Your task to perform on an android device: open the mobile data screen to see how much data has been used Image 0: 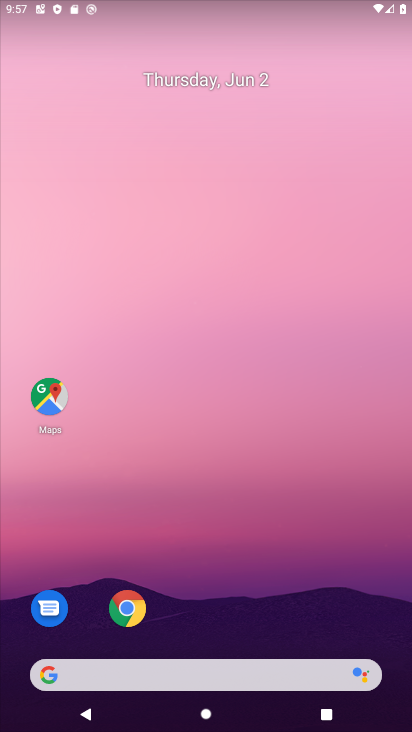
Step 0: drag from (229, 637) to (296, 135)
Your task to perform on an android device: open the mobile data screen to see how much data has been used Image 1: 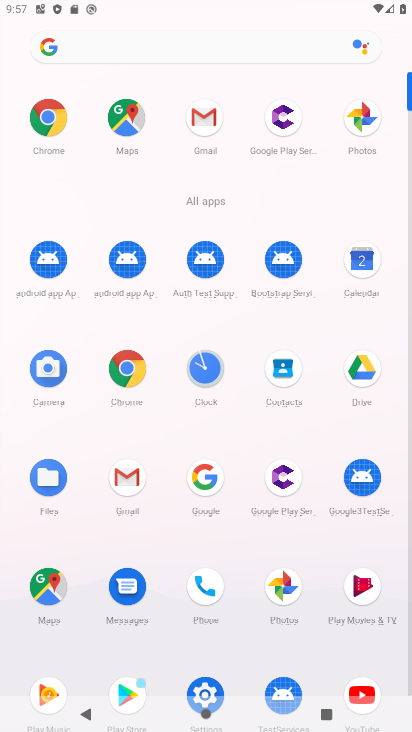
Step 1: click (211, 684)
Your task to perform on an android device: open the mobile data screen to see how much data has been used Image 2: 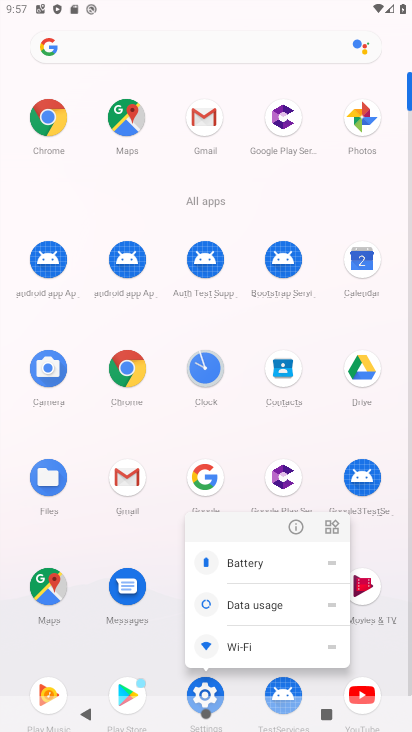
Step 2: click (206, 692)
Your task to perform on an android device: open the mobile data screen to see how much data has been used Image 3: 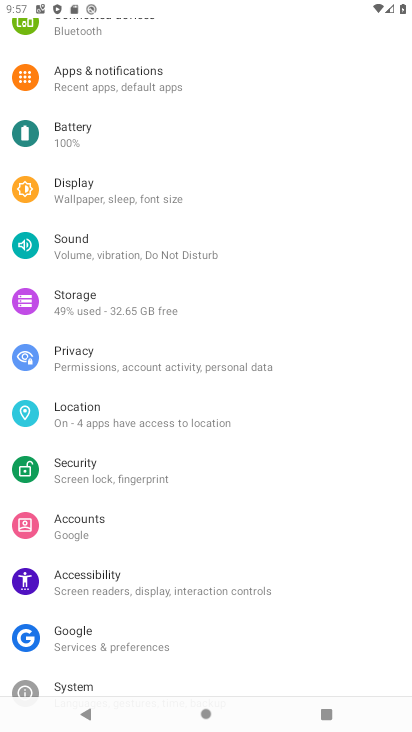
Step 3: drag from (270, 149) to (169, 618)
Your task to perform on an android device: open the mobile data screen to see how much data has been used Image 4: 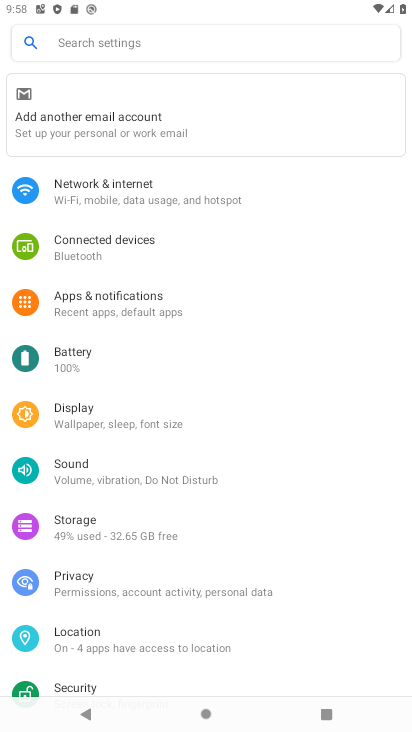
Step 4: click (199, 208)
Your task to perform on an android device: open the mobile data screen to see how much data has been used Image 5: 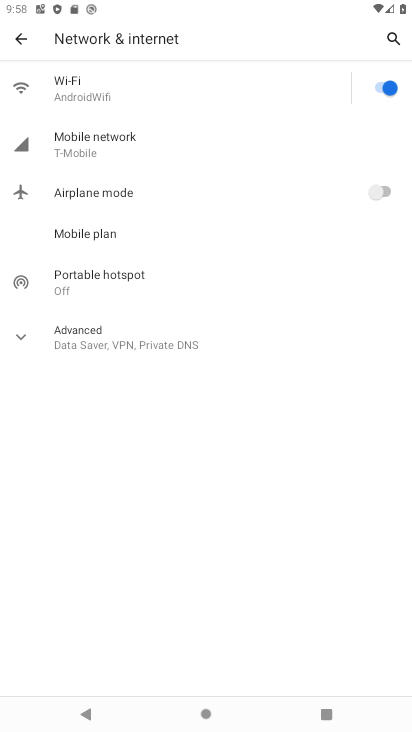
Step 5: click (161, 150)
Your task to perform on an android device: open the mobile data screen to see how much data has been used Image 6: 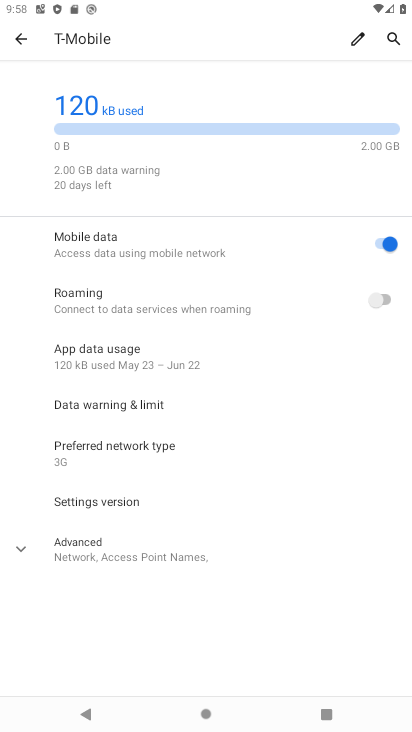
Step 6: task complete